Your task to perform on an android device: open app "Microsoft Excel" Image 0: 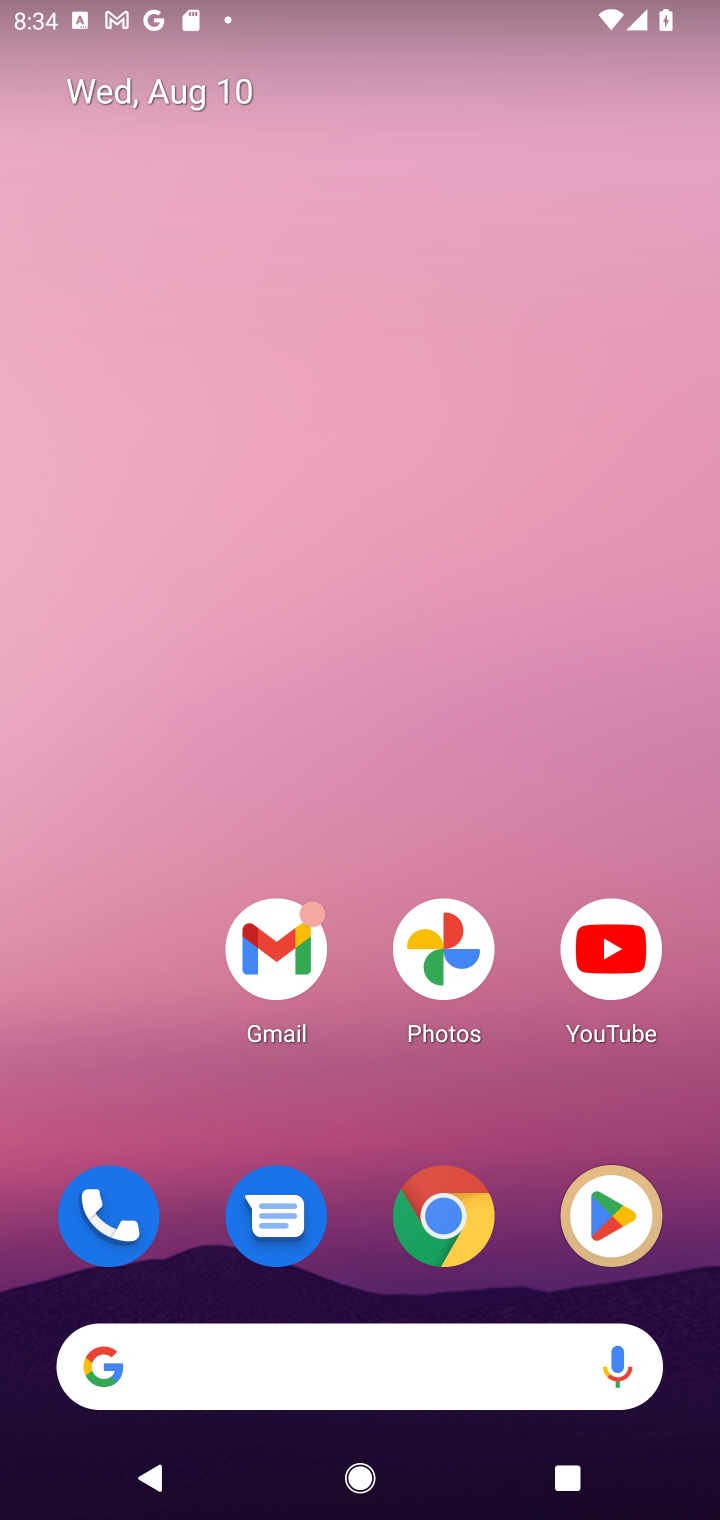
Step 0: click (604, 1204)
Your task to perform on an android device: open app "Microsoft Excel" Image 1: 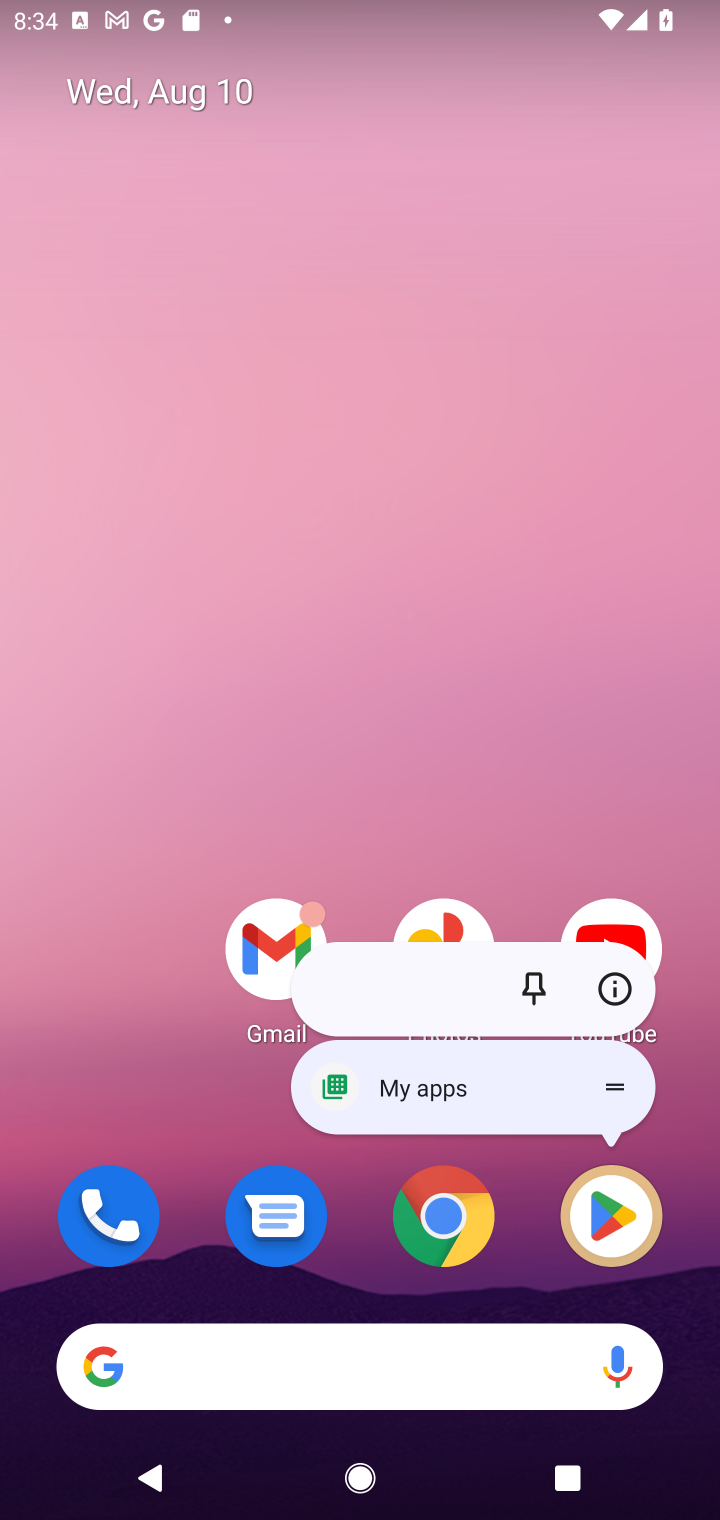
Step 1: click (604, 1204)
Your task to perform on an android device: open app "Microsoft Excel" Image 2: 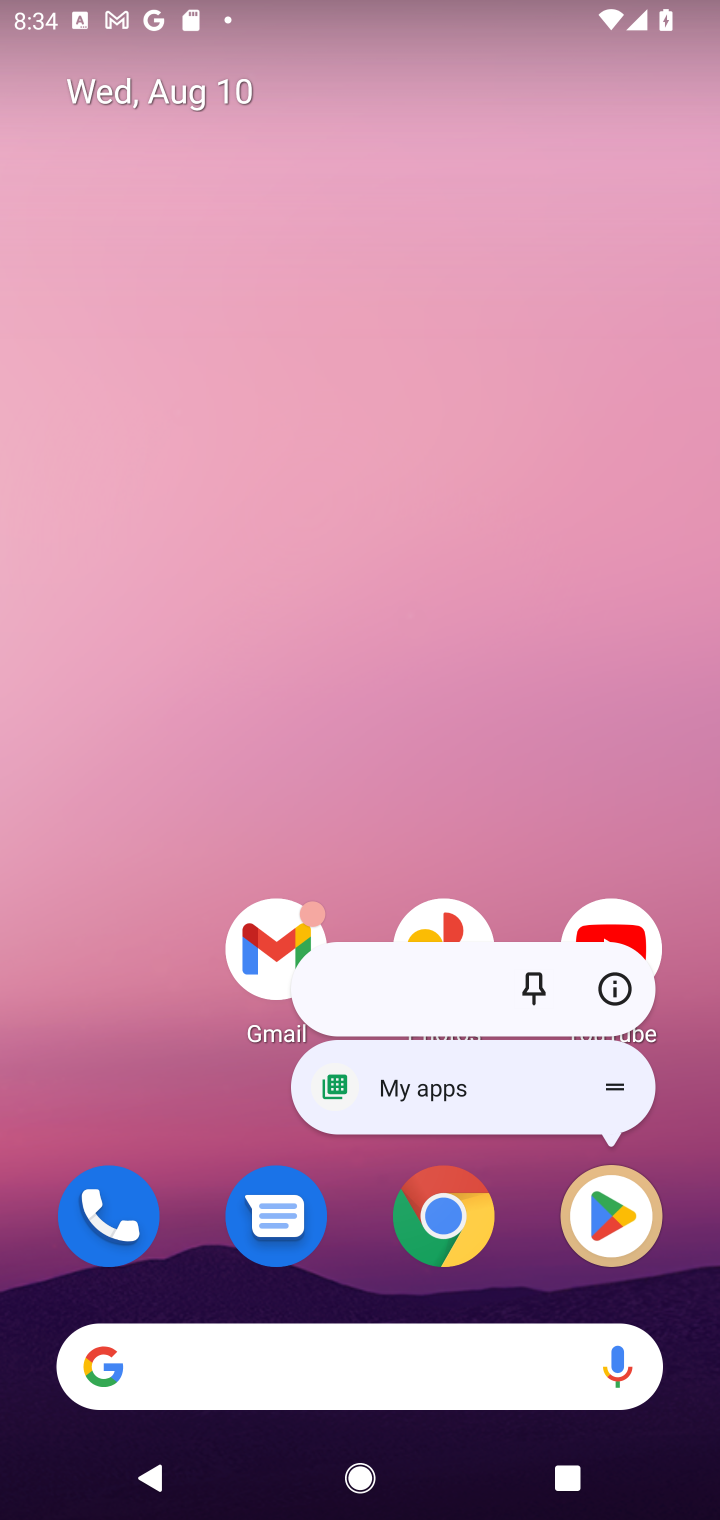
Step 2: click (636, 1225)
Your task to perform on an android device: open app "Microsoft Excel" Image 3: 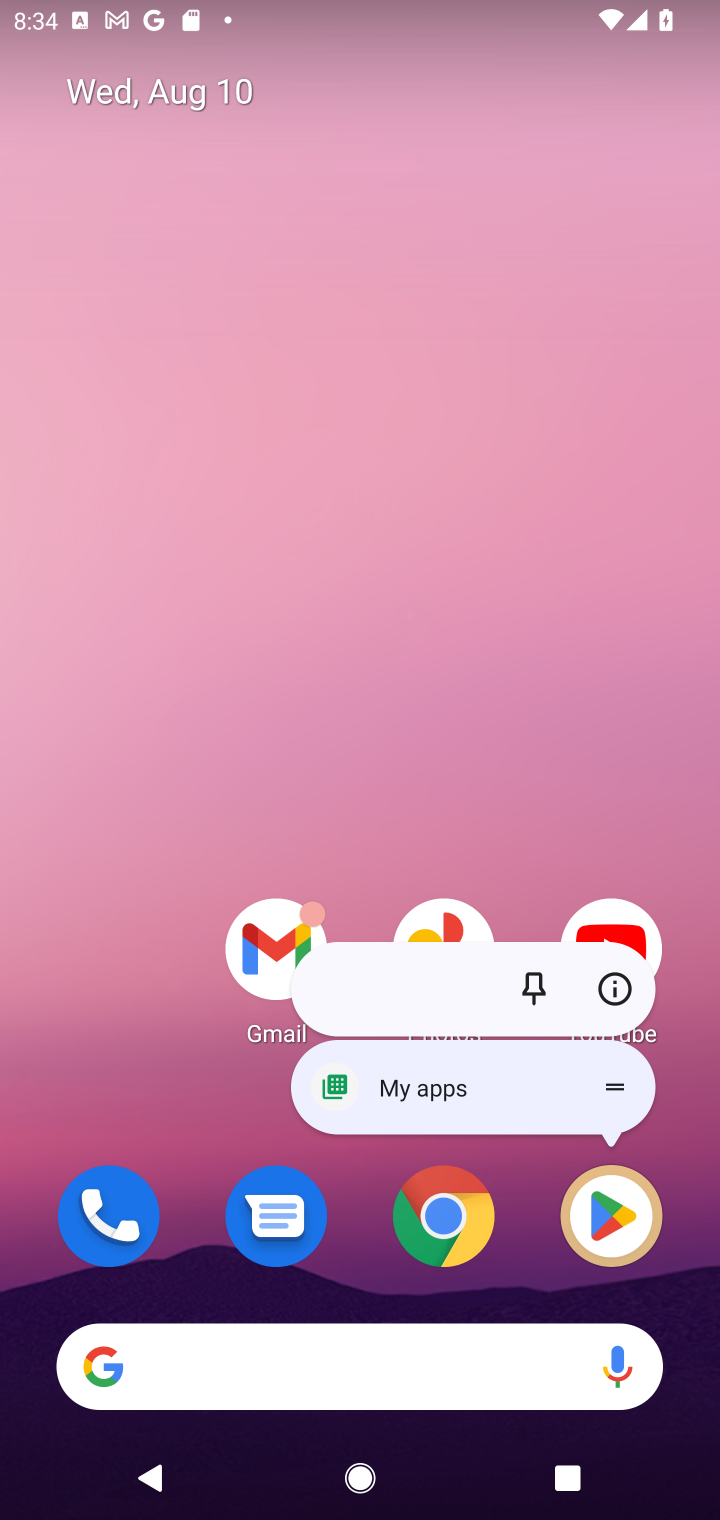
Step 3: click (627, 1224)
Your task to perform on an android device: open app "Microsoft Excel" Image 4: 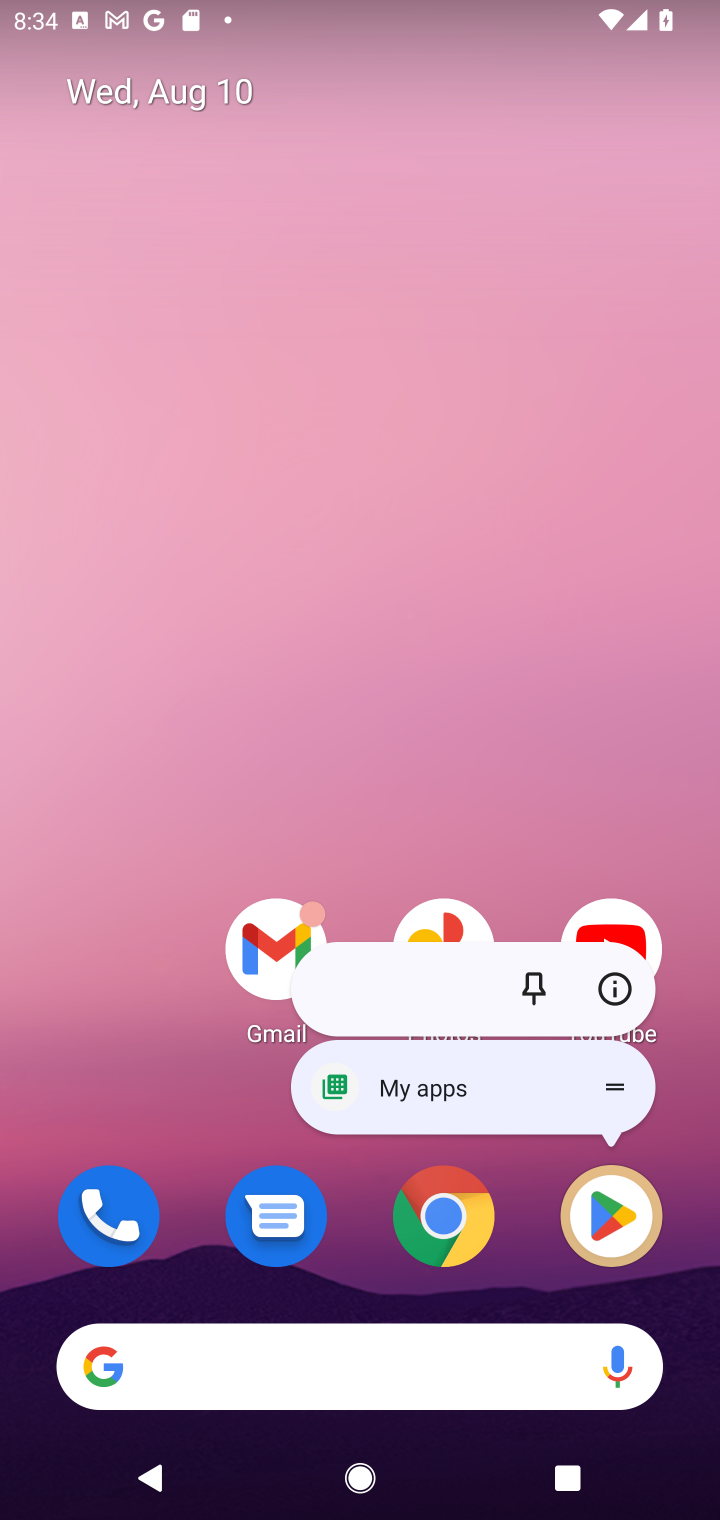
Step 4: click (595, 1217)
Your task to perform on an android device: open app "Microsoft Excel" Image 5: 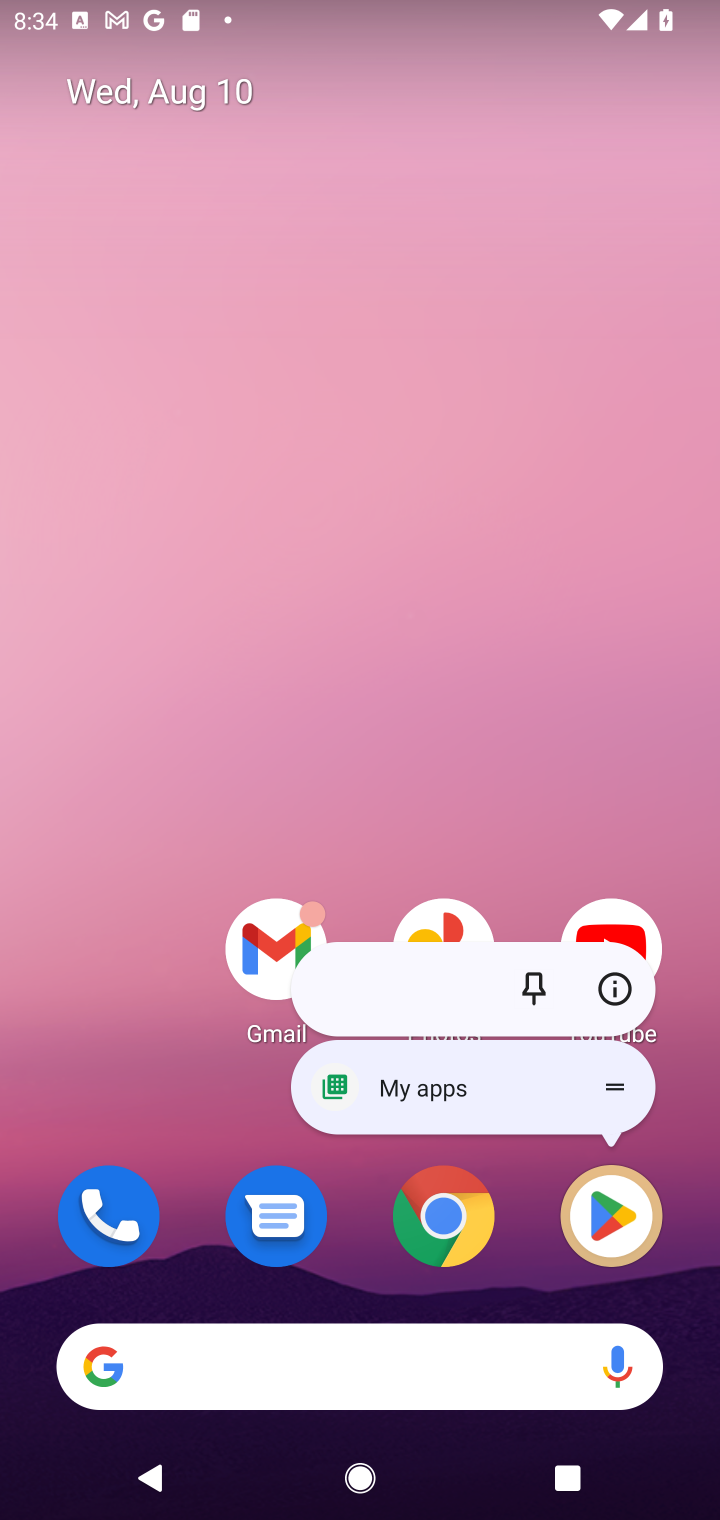
Step 5: click (620, 1214)
Your task to perform on an android device: open app "Microsoft Excel" Image 6: 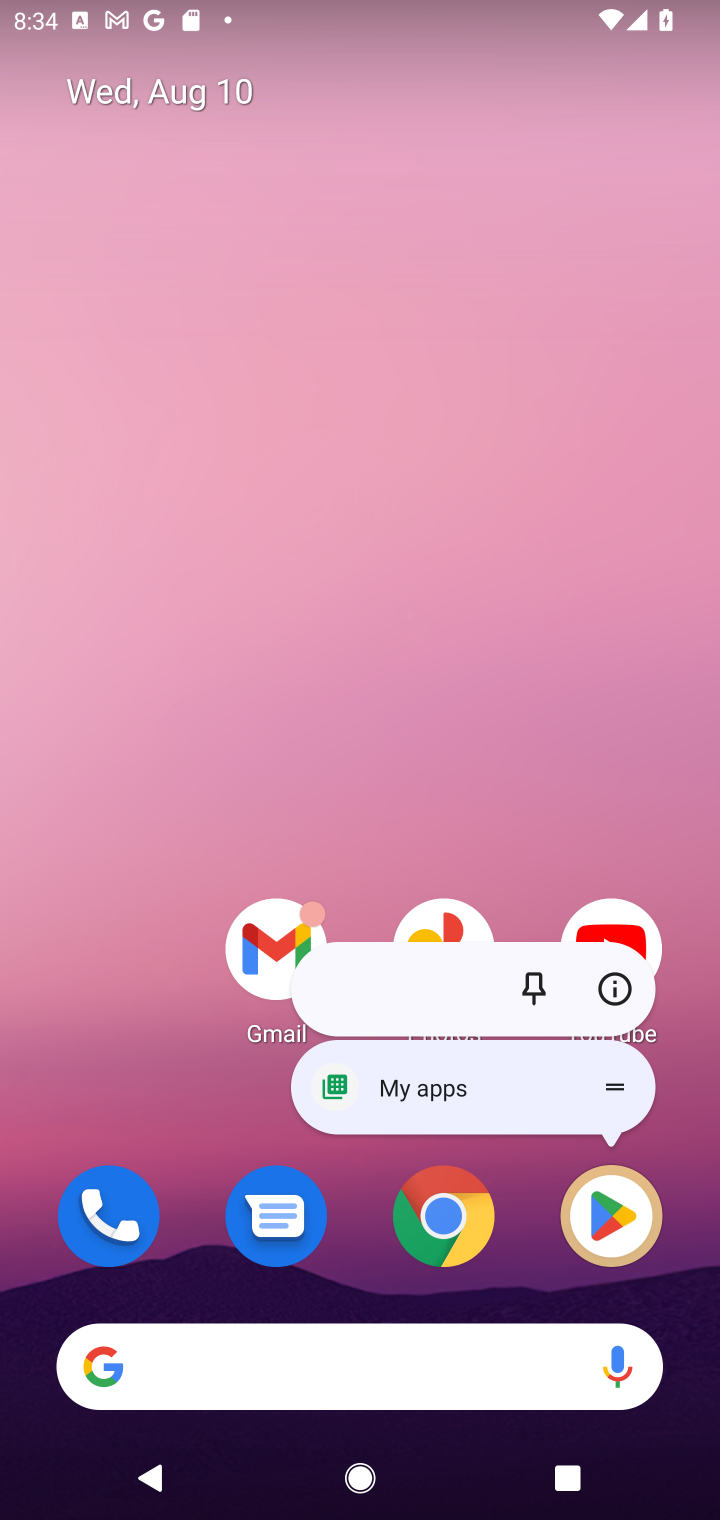
Step 6: click (611, 1210)
Your task to perform on an android device: open app "Microsoft Excel" Image 7: 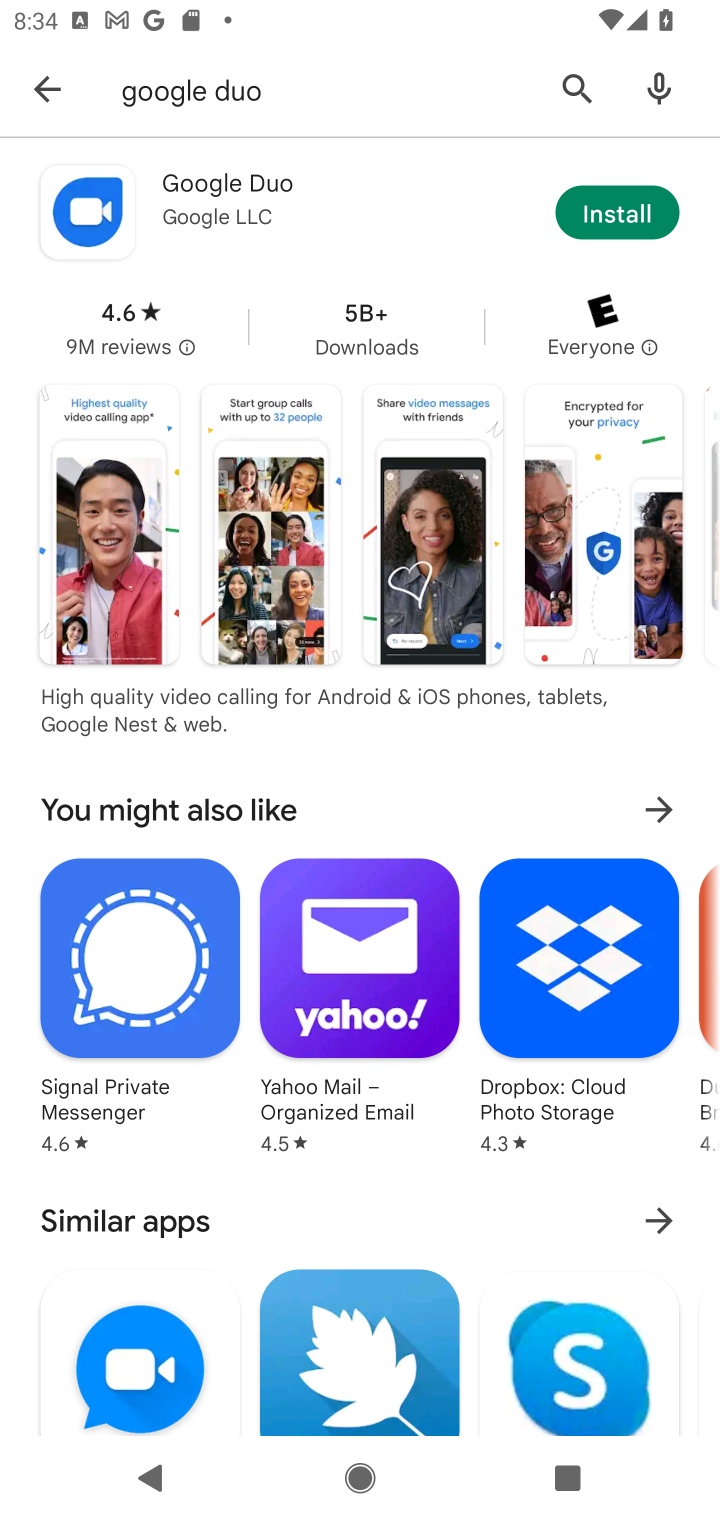
Step 7: click (573, 86)
Your task to perform on an android device: open app "Microsoft Excel" Image 8: 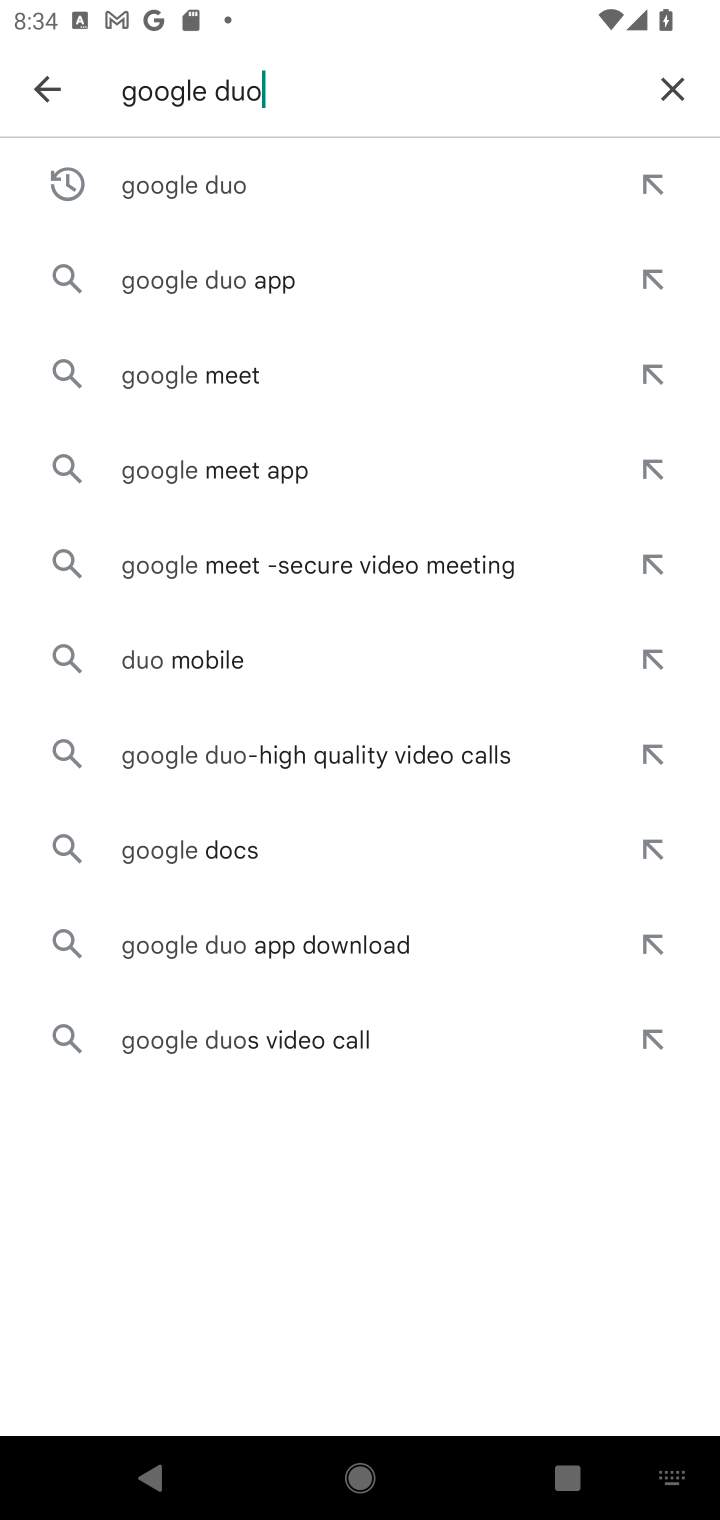
Step 8: click (677, 83)
Your task to perform on an android device: open app "Microsoft Excel" Image 9: 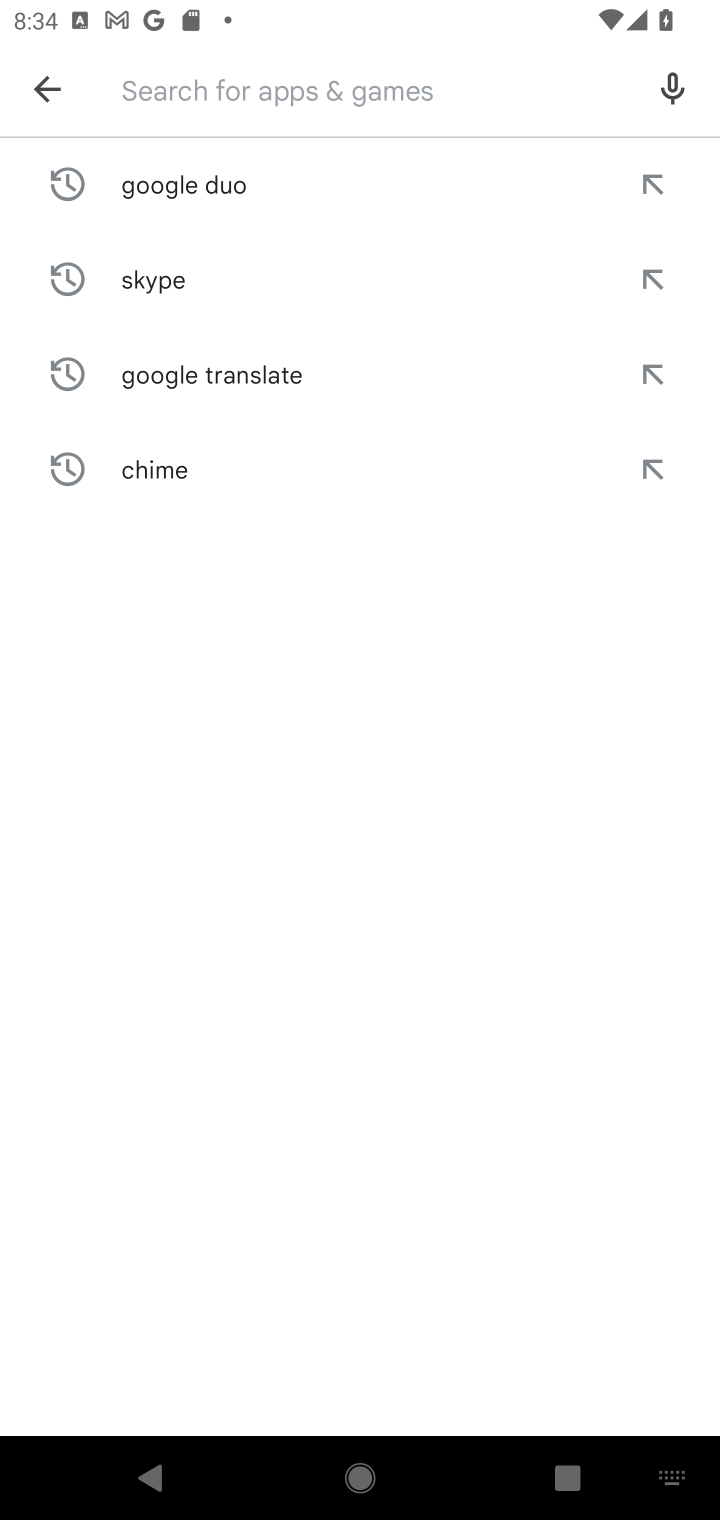
Step 9: click (251, 93)
Your task to perform on an android device: open app "Microsoft Excel" Image 10: 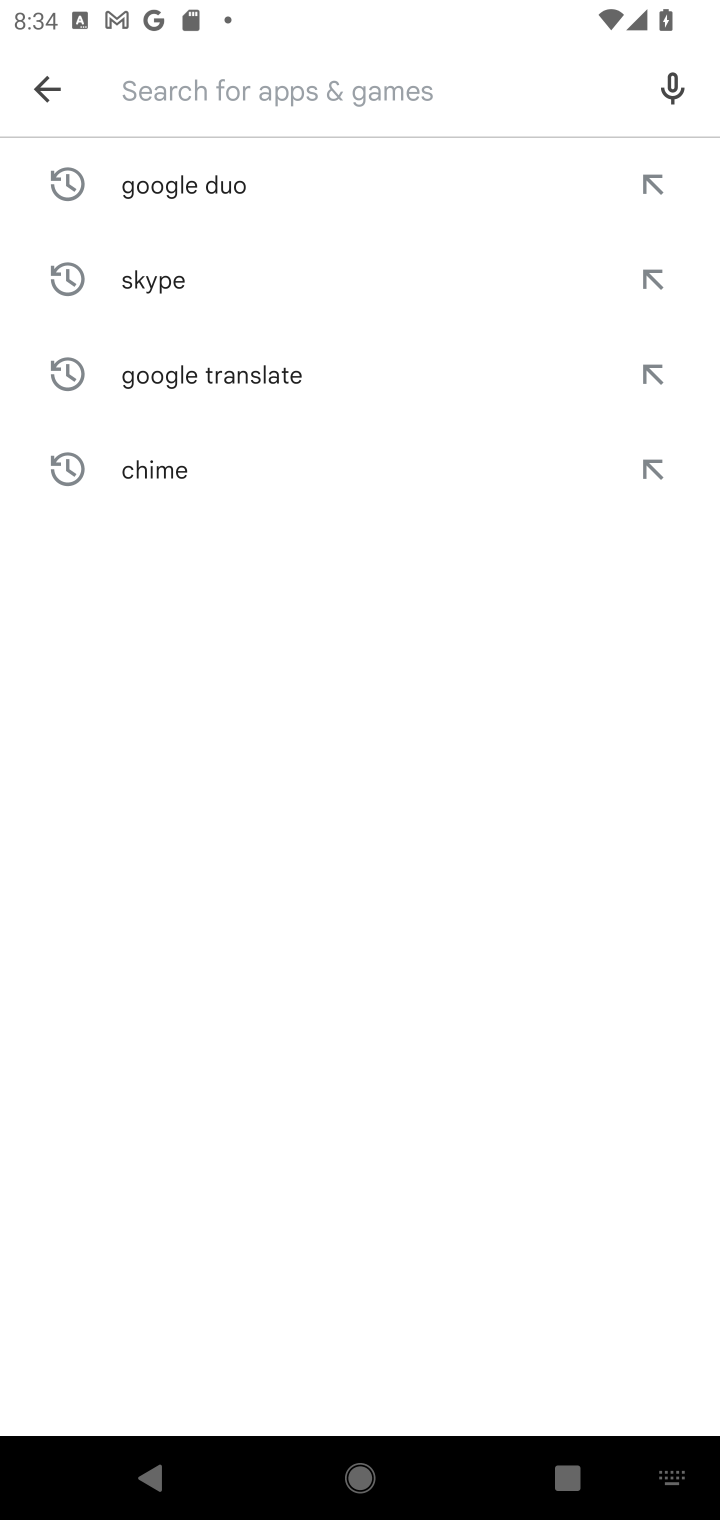
Step 10: type "Microsoft Excel"
Your task to perform on an android device: open app "Microsoft Excel" Image 11: 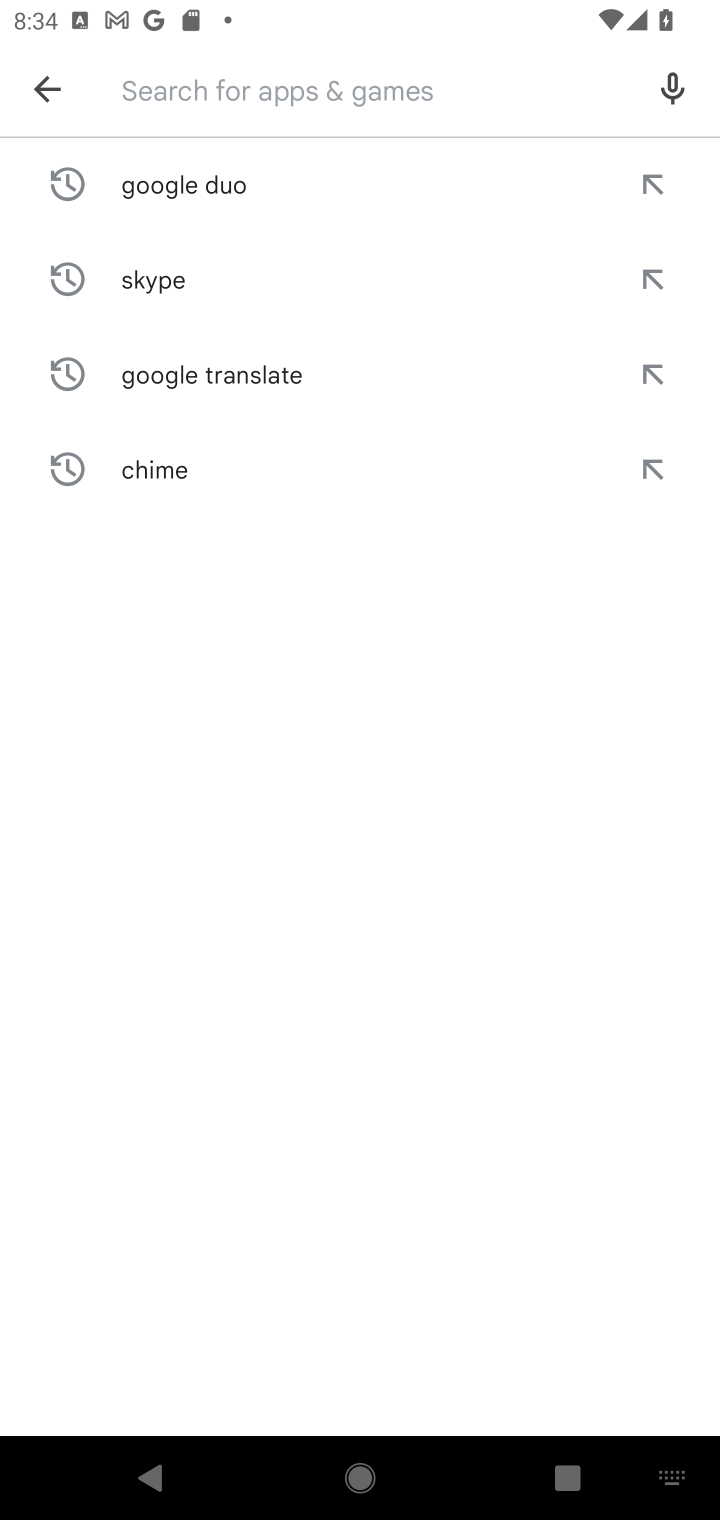
Step 11: click (306, 801)
Your task to perform on an android device: open app "Microsoft Excel" Image 12: 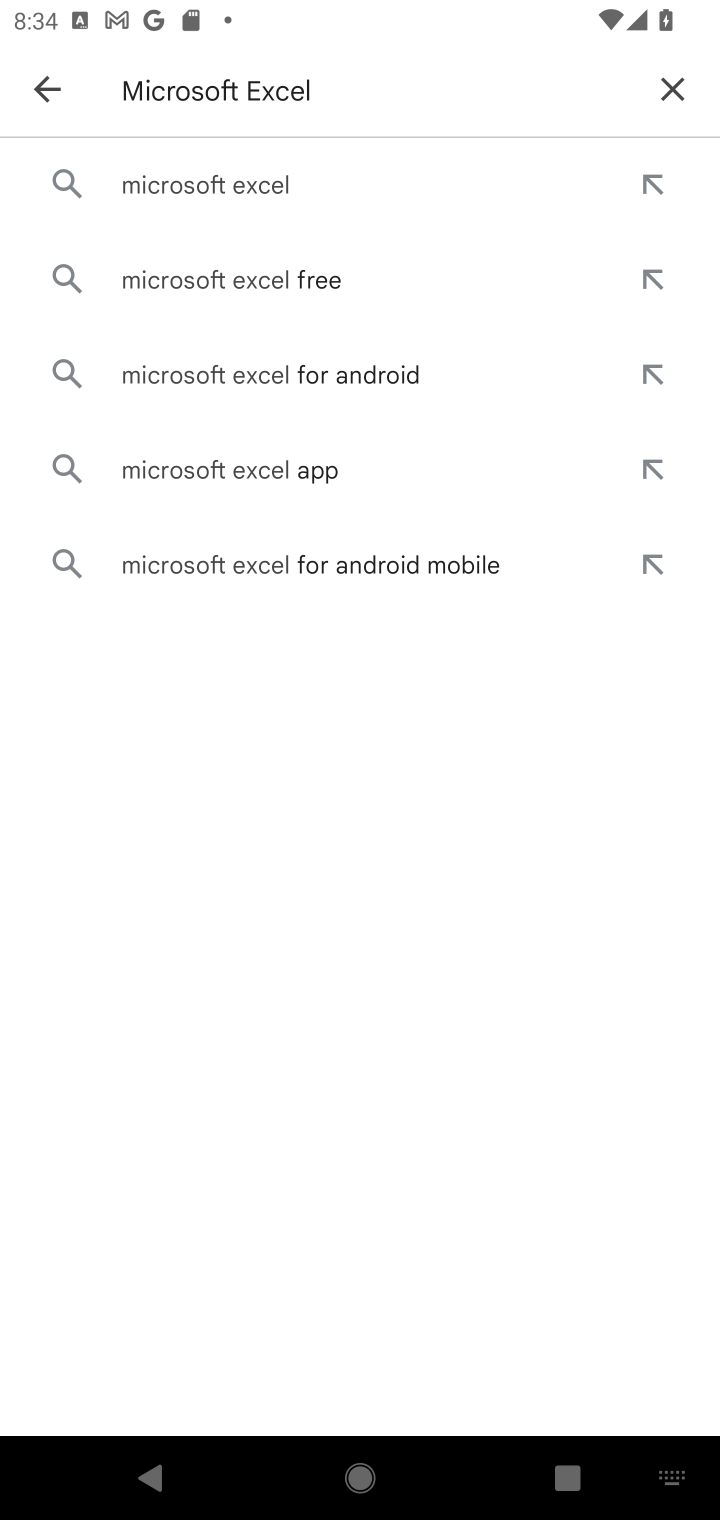
Step 12: click (195, 168)
Your task to perform on an android device: open app "Microsoft Excel" Image 13: 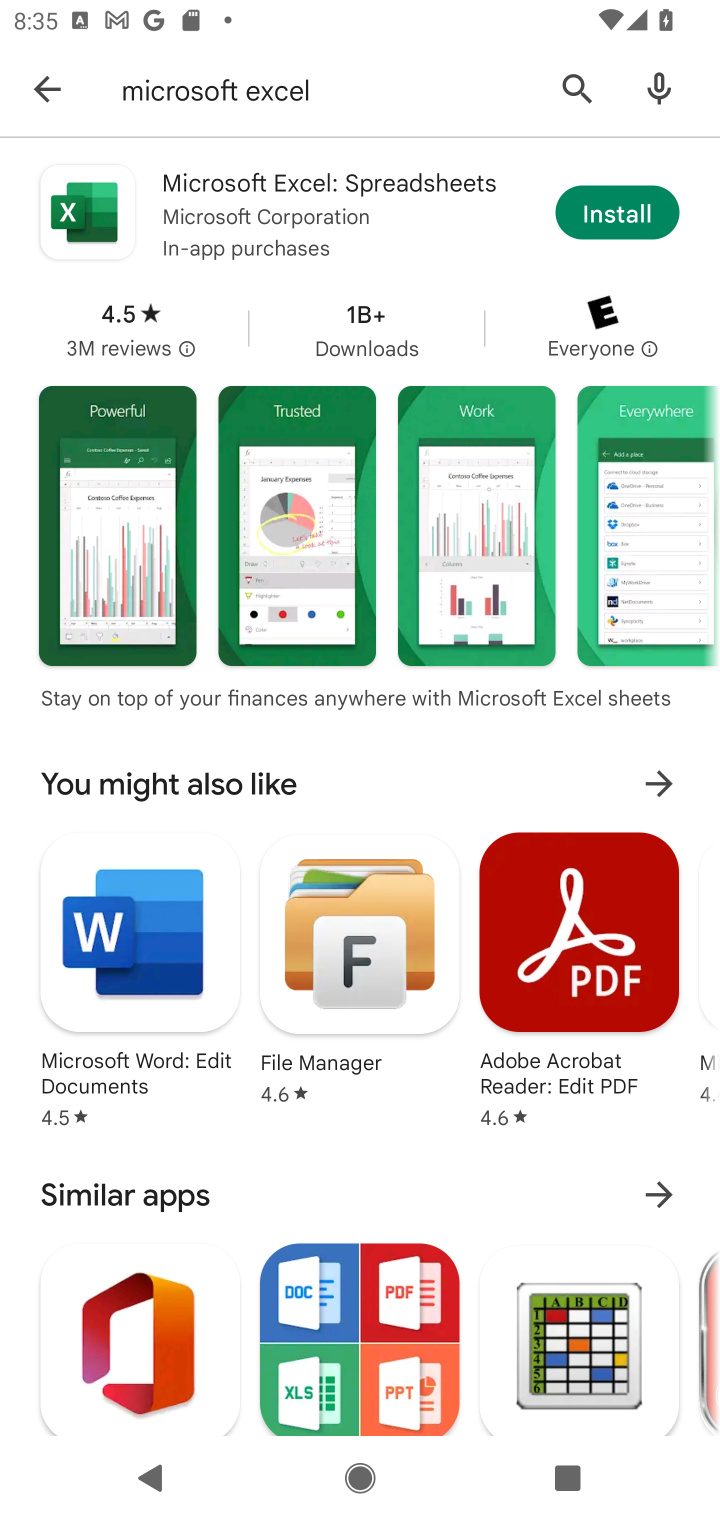
Step 13: task complete